Your task to perform on an android device: change timer sound Image 0: 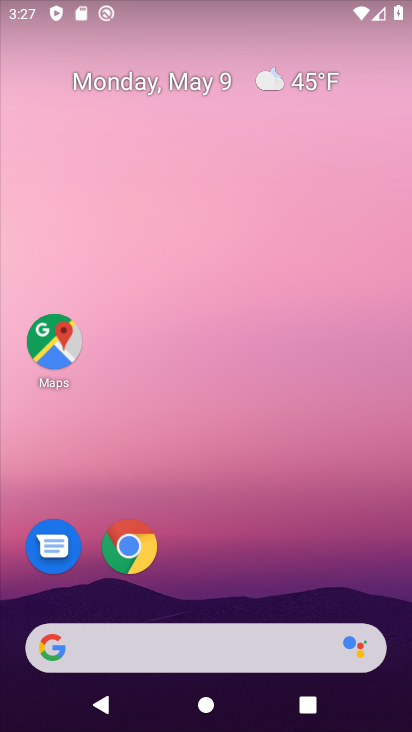
Step 0: drag from (247, 629) to (245, 553)
Your task to perform on an android device: change timer sound Image 1: 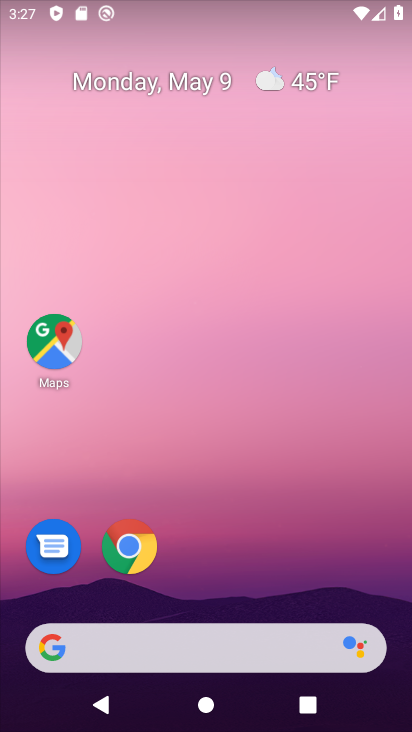
Step 1: drag from (221, 591) to (250, 385)
Your task to perform on an android device: change timer sound Image 2: 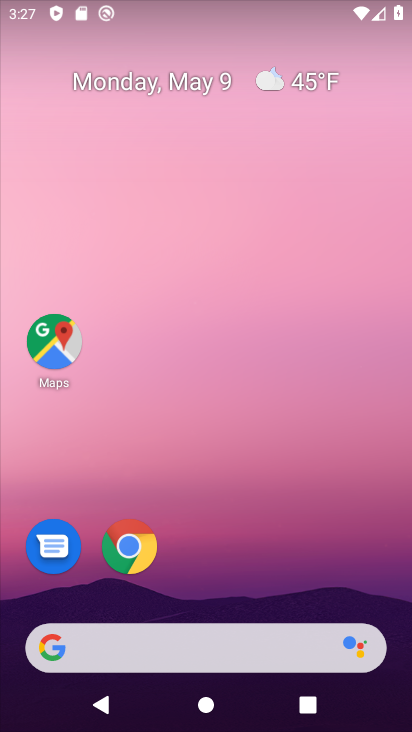
Step 2: drag from (269, 590) to (330, 228)
Your task to perform on an android device: change timer sound Image 3: 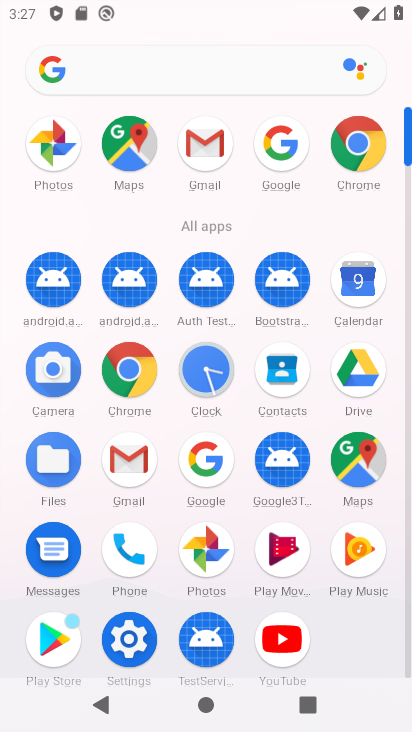
Step 3: click (196, 390)
Your task to perform on an android device: change timer sound Image 4: 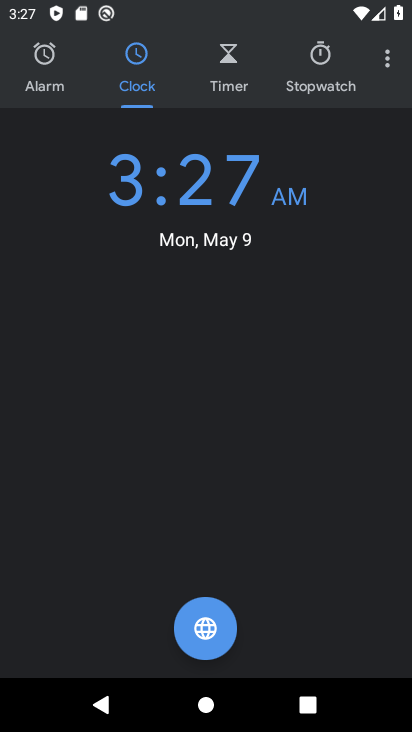
Step 4: click (383, 61)
Your task to perform on an android device: change timer sound Image 5: 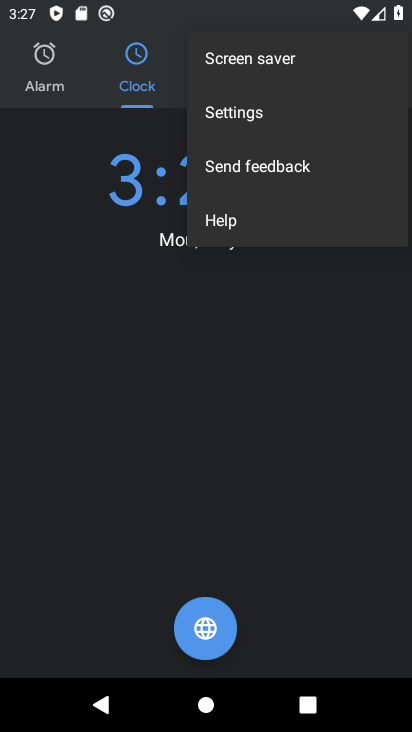
Step 5: click (346, 103)
Your task to perform on an android device: change timer sound Image 6: 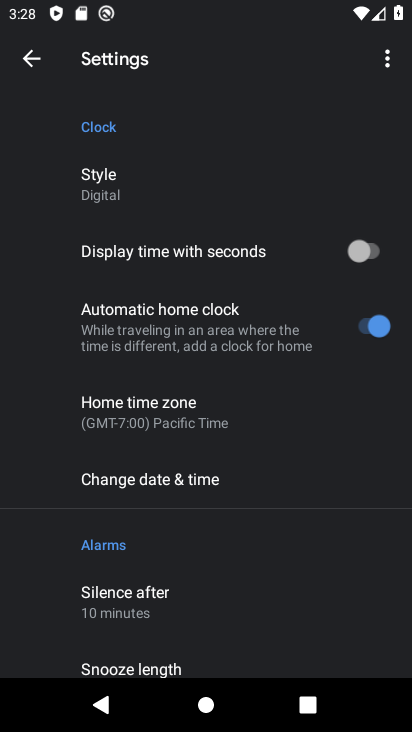
Step 6: drag from (240, 659) to (300, 422)
Your task to perform on an android device: change timer sound Image 7: 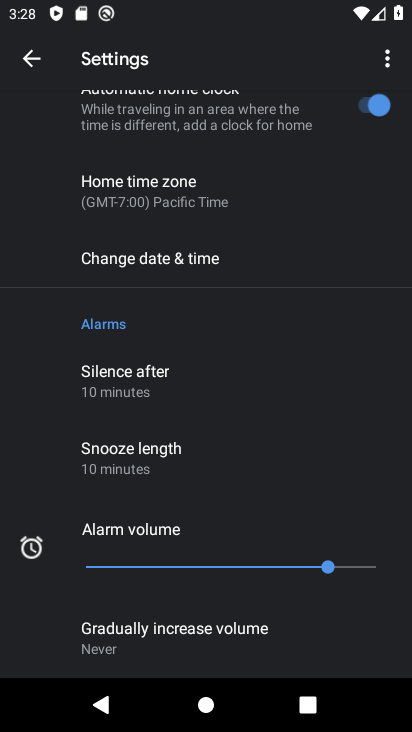
Step 7: drag from (184, 617) to (255, 444)
Your task to perform on an android device: change timer sound Image 8: 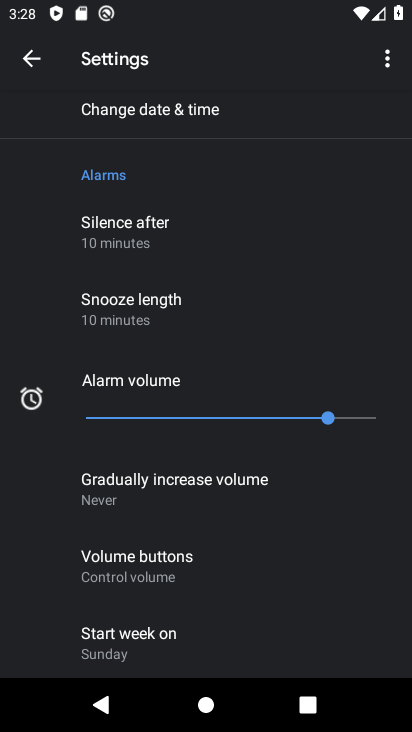
Step 8: drag from (199, 605) to (289, 274)
Your task to perform on an android device: change timer sound Image 9: 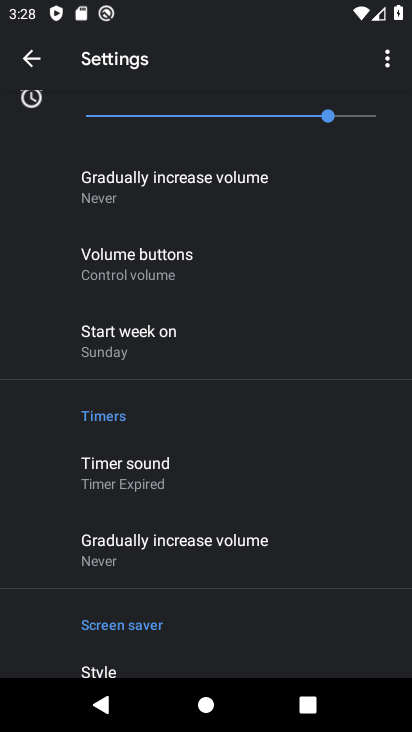
Step 9: click (218, 474)
Your task to perform on an android device: change timer sound Image 10: 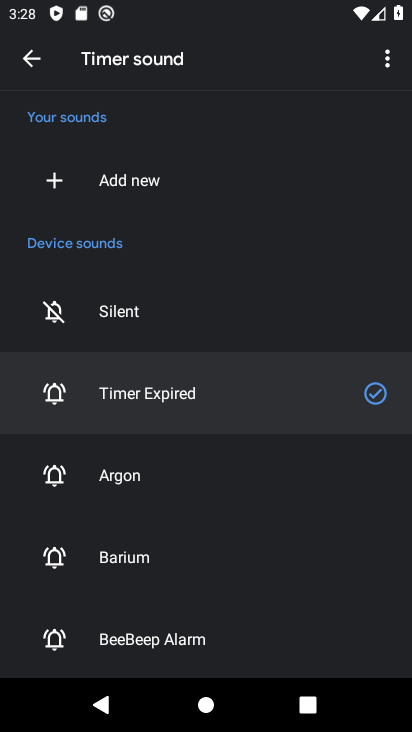
Step 10: click (167, 562)
Your task to perform on an android device: change timer sound Image 11: 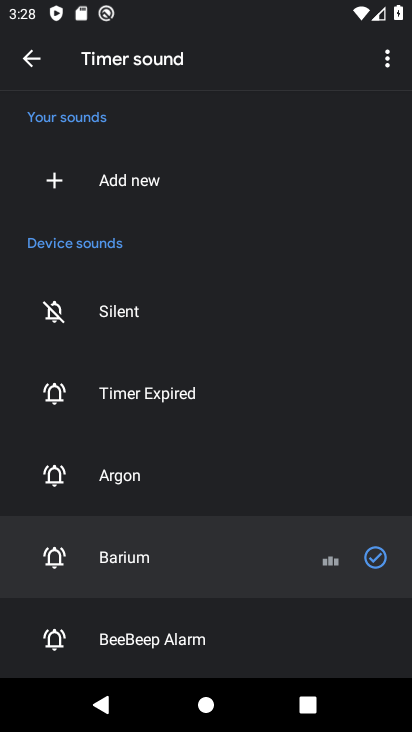
Step 11: click (167, 562)
Your task to perform on an android device: change timer sound Image 12: 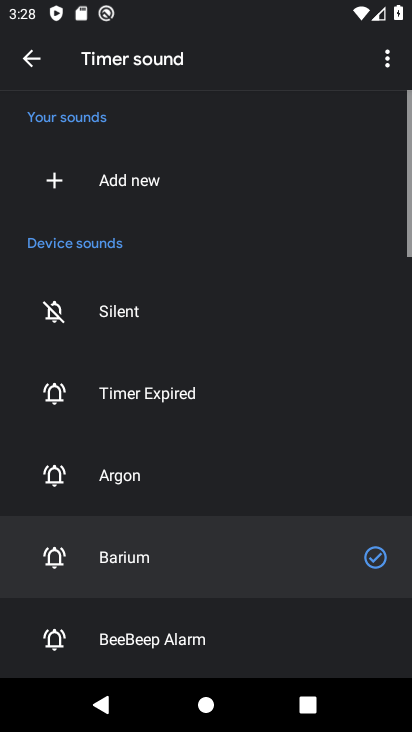
Step 12: click (180, 492)
Your task to perform on an android device: change timer sound Image 13: 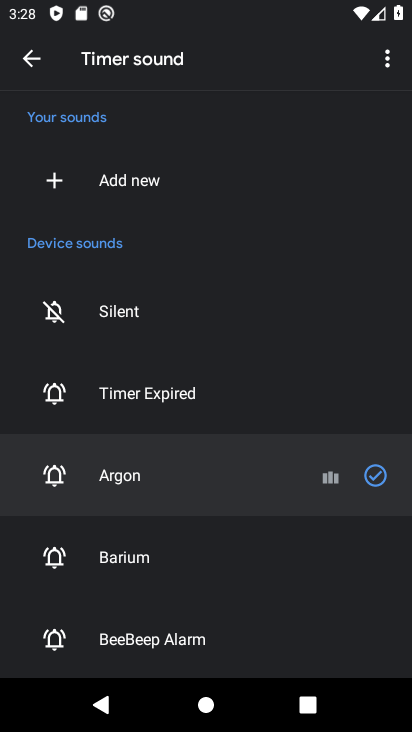
Step 13: task complete